Your task to perform on an android device: Search for vegetarian restaurants on Maps Image 0: 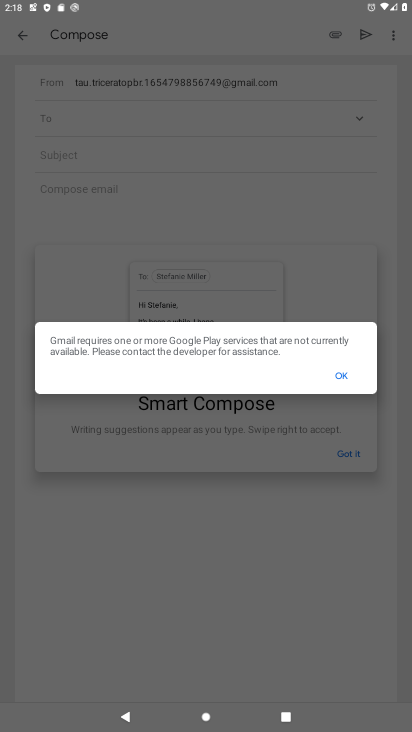
Step 0: press home button
Your task to perform on an android device: Search for vegetarian restaurants on Maps Image 1: 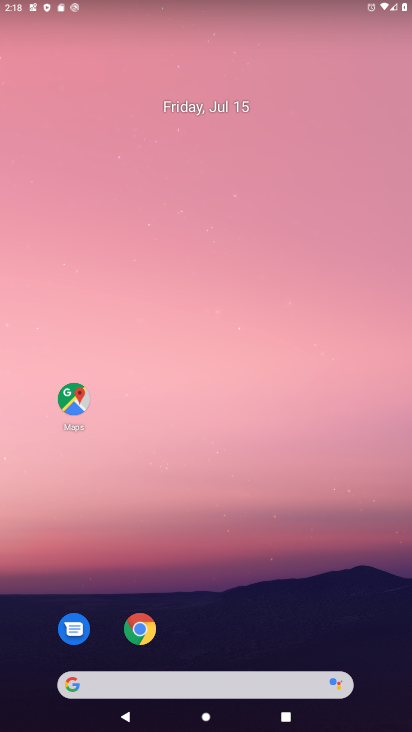
Step 1: drag from (274, 564) to (267, 135)
Your task to perform on an android device: Search for vegetarian restaurants on Maps Image 2: 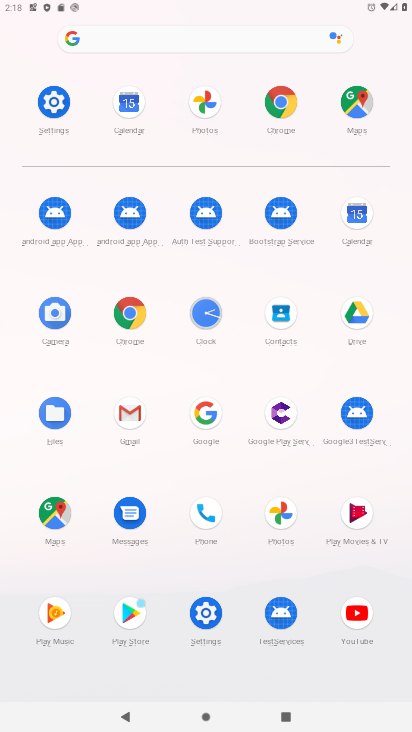
Step 2: click (57, 508)
Your task to perform on an android device: Search for vegetarian restaurants on Maps Image 3: 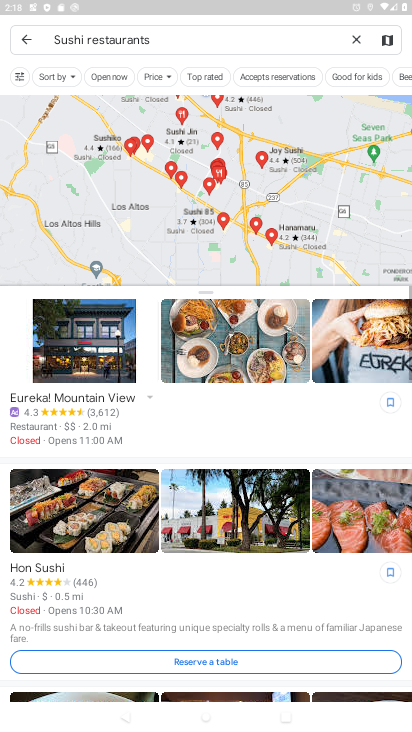
Step 3: click (255, 42)
Your task to perform on an android device: Search for vegetarian restaurants on Maps Image 4: 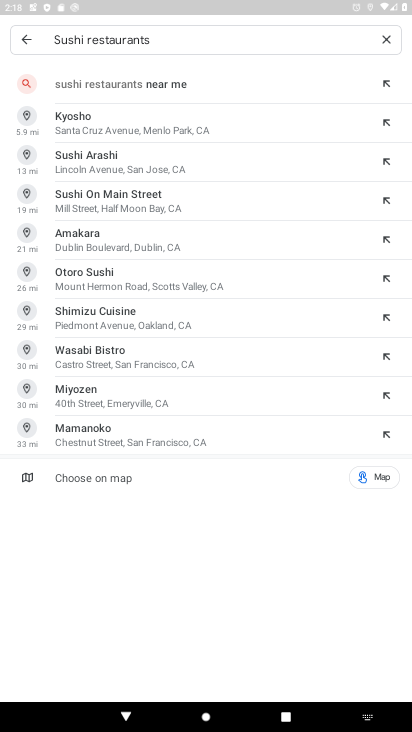
Step 4: click (384, 38)
Your task to perform on an android device: Search for vegetarian restaurants on Maps Image 5: 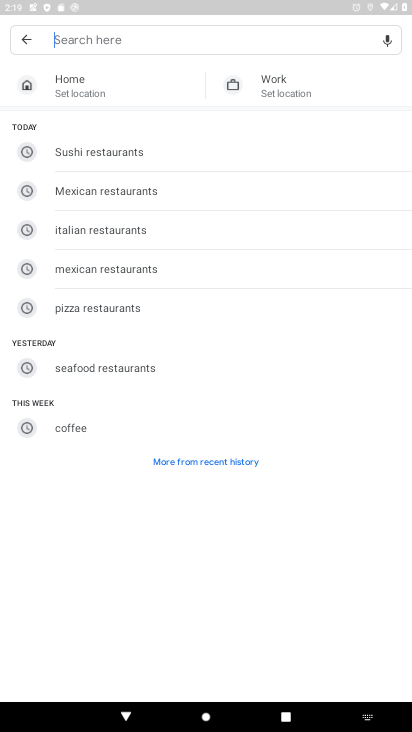
Step 5: type "vegetarian restaurants"
Your task to perform on an android device: Search for vegetarian restaurants on Maps Image 6: 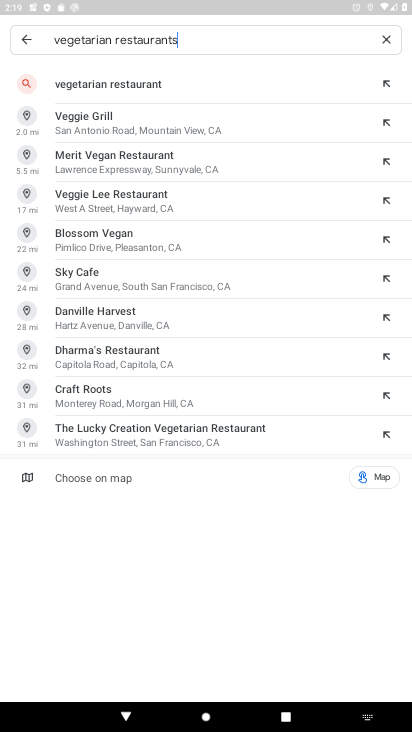
Step 6: press enter
Your task to perform on an android device: Search for vegetarian restaurants on Maps Image 7: 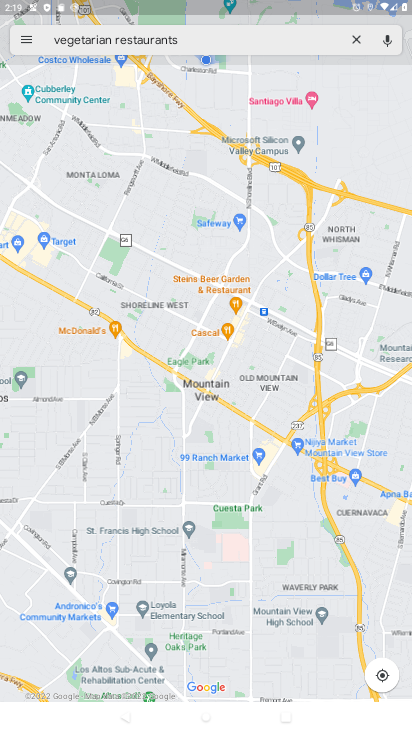
Step 7: task complete